Your task to perform on an android device: change alarm snooze length Image 0: 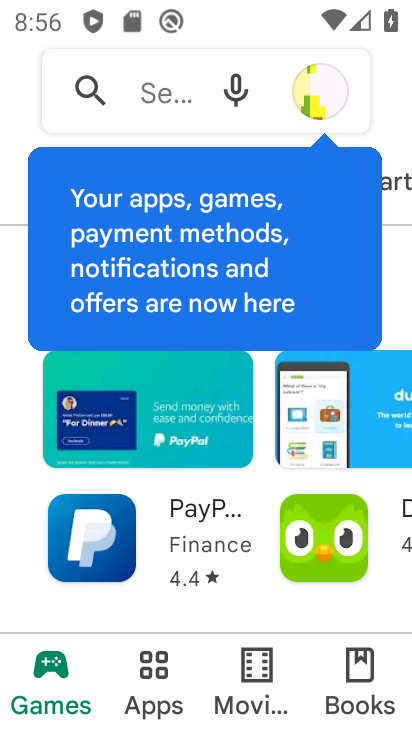
Step 0: press back button
Your task to perform on an android device: change alarm snooze length Image 1: 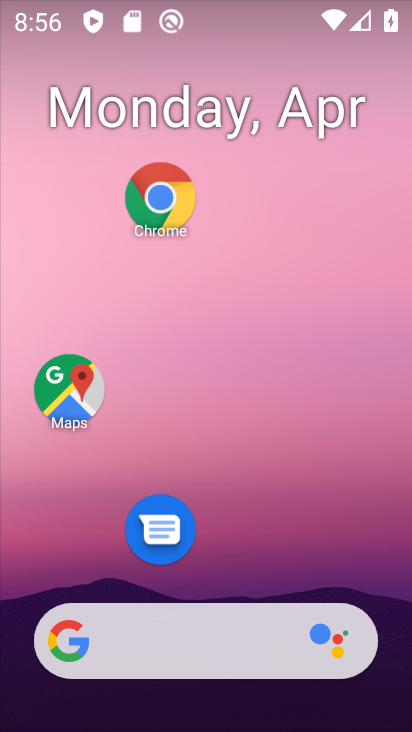
Step 1: drag from (258, 528) to (303, 17)
Your task to perform on an android device: change alarm snooze length Image 2: 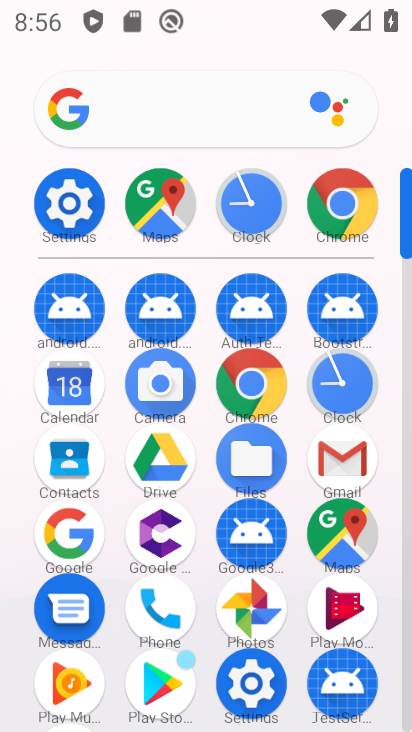
Step 2: click (349, 399)
Your task to perform on an android device: change alarm snooze length Image 3: 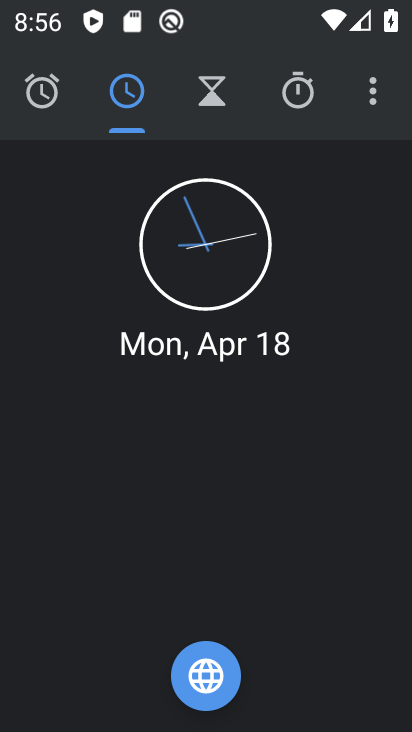
Step 3: click (376, 88)
Your task to perform on an android device: change alarm snooze length Image 4: 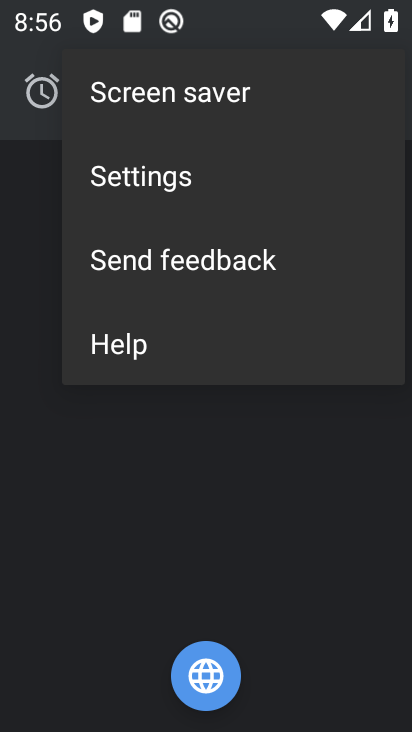
Step 4: click (182, 185)
Your task to perform on an android device: change alarm snooze length Image 5: 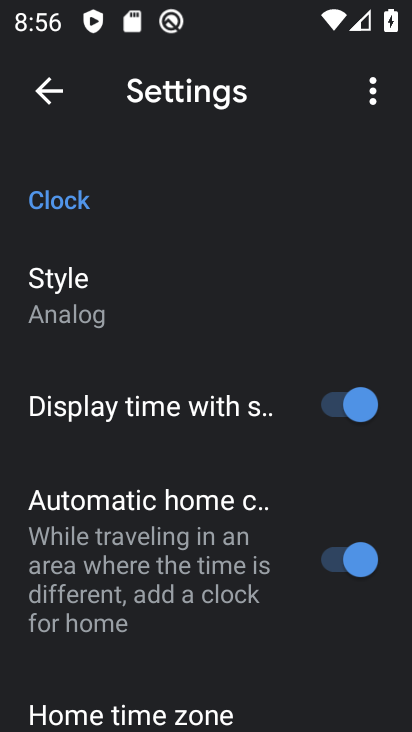
Step 5: drag from (118, 615) to (213, 206)
Your task to perform on an android device: change alarm snooze length Image 6: 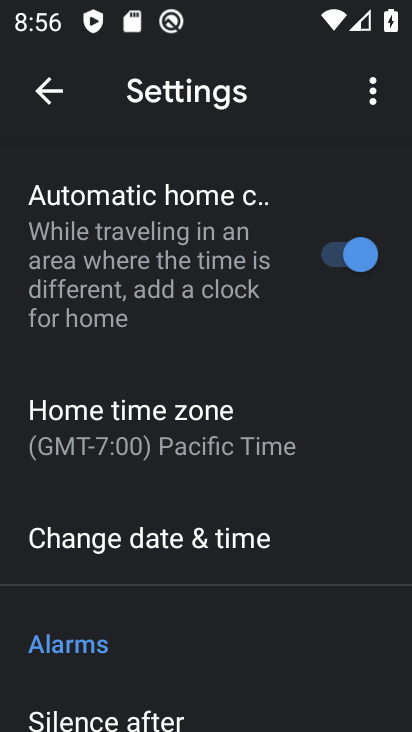
Step 6: drag from (193, 644) to (270, 53)
Your task to perform on an android device: change alarm snooze length Image 7: 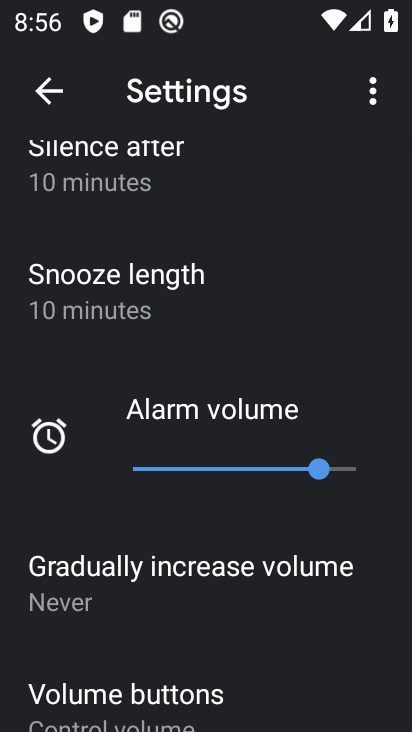
Step 7: click (86, 292)
Your task to perform on an android device: change alarm snooze length Image 8: 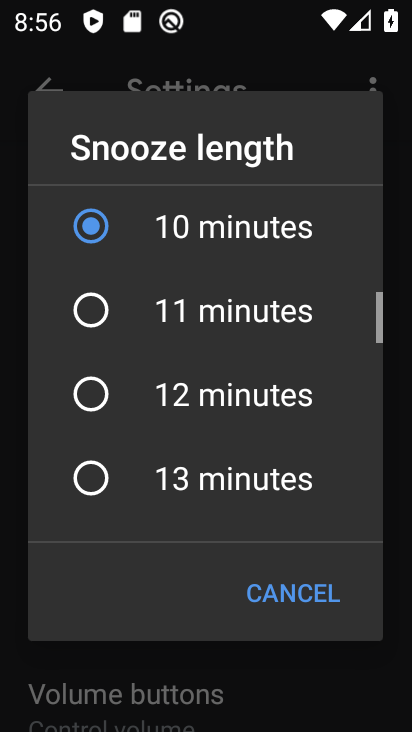
Step 8: click (93, 303)
Your task to perform on an android device: change alarm snooze length Image 9: 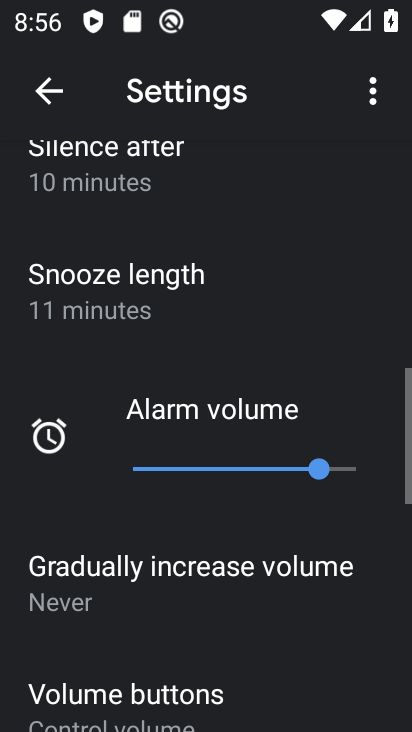
Step 9: task complete